Your task to perform on an android device: Open eBay Image 0: 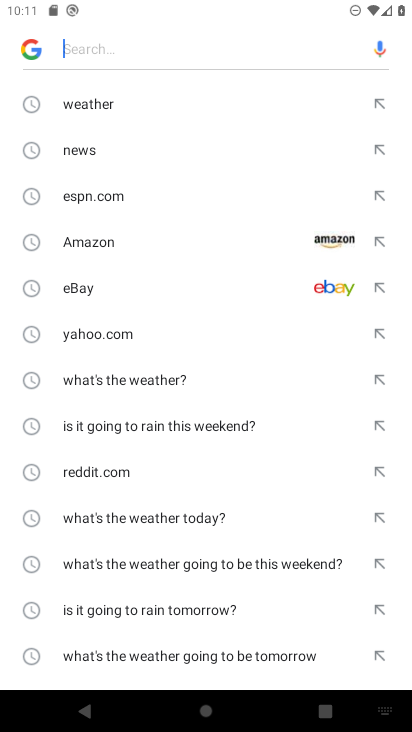
Step 0: press home button
Your task to perform on an android device: Open eBay Image 1: 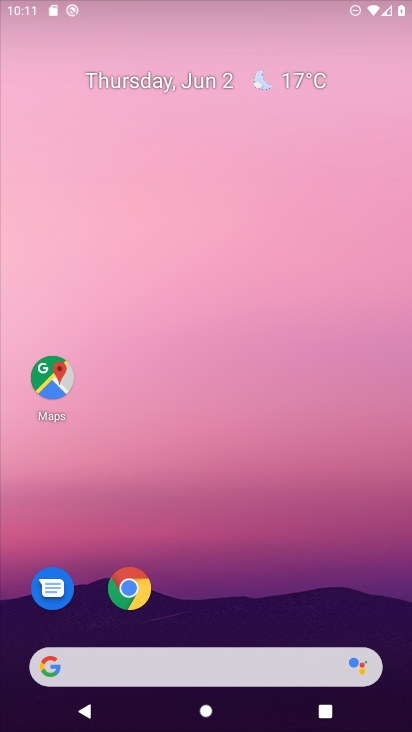
Step 1: drag from (222, 671) to (255, 255)
Your task to perform on an android device: Open eBay Image 2: 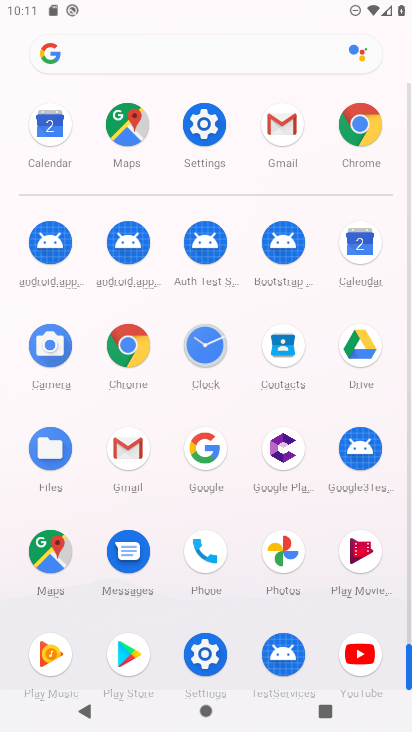
Step 2: click (374, 129)
Your task to perform on an android device: Open eBay Image 3: 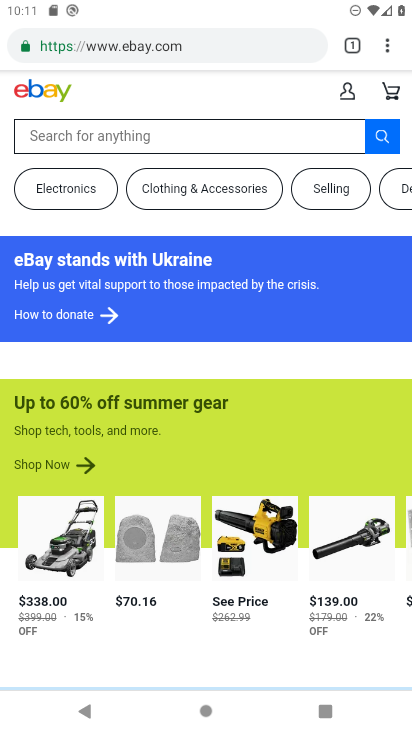
Step 3: task complete